Your task to perform on an android device: turn smart compose on in the gmail app Image 0: 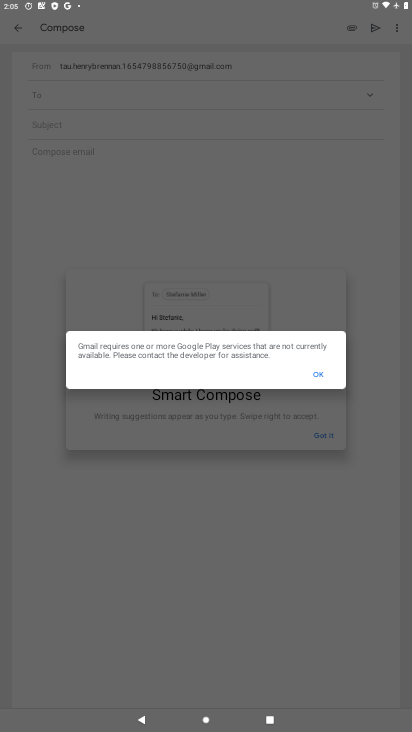
Step 0: press home button
Your task to perform on an android device: turn smart compose on in the gmail app Image 1: 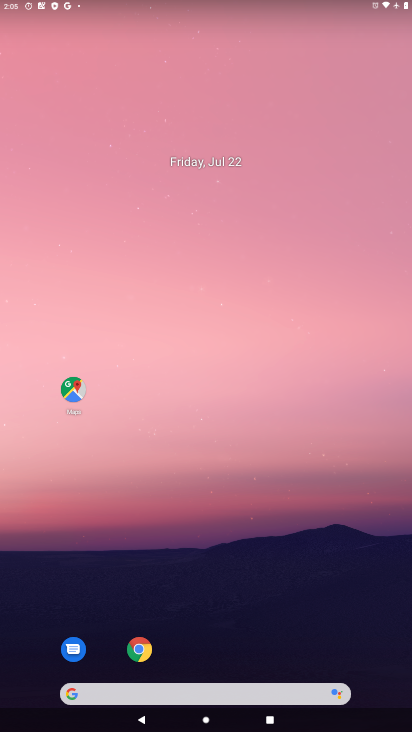
Step 1: drag from (291, 641) to (244, 147)
Your task to perform on an android device: turn smart compose on in the gmail app Image 2: 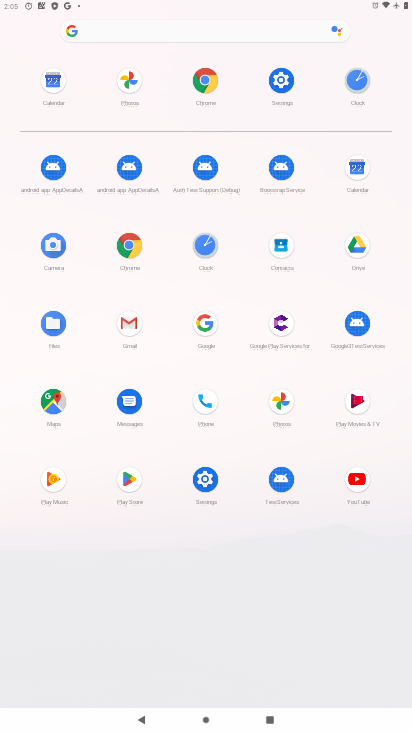
Step 2: click (143, 325)
Your task to perform on an android device: turn smart compose on in the gmail app Image 3: 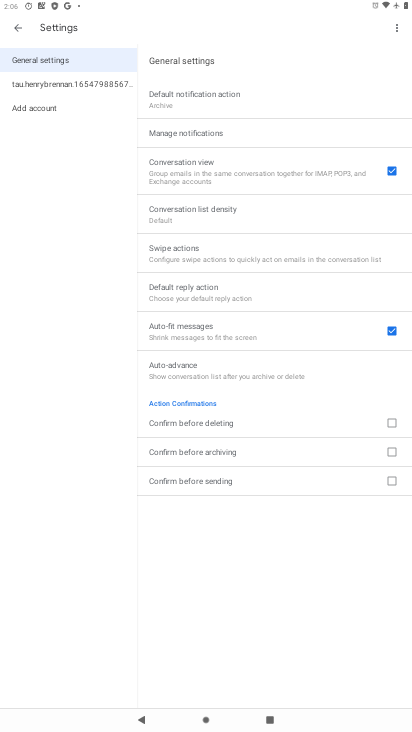
Step 3: click (74, 83)
Your task to perform on an android device: turn smart compose on in the gmail app Image 4: 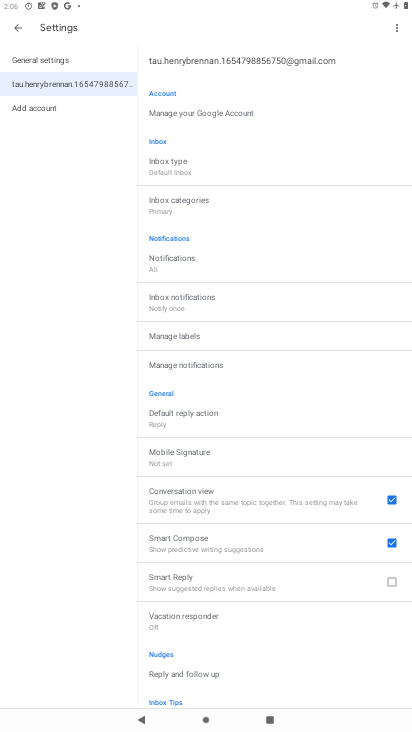
Step 4: task complete